Your task to perform on an android device: open chrome and create a bookmark for the current page Image 0: 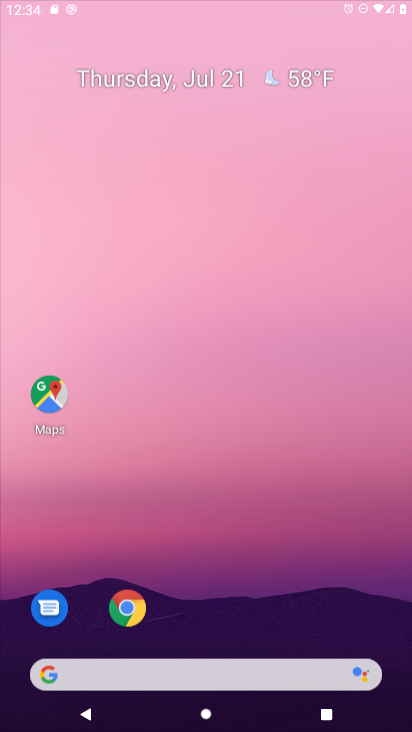
Step 0: press home button
Your task to perform on an android device: open chrome and create a bookmark for the current page Image 1: 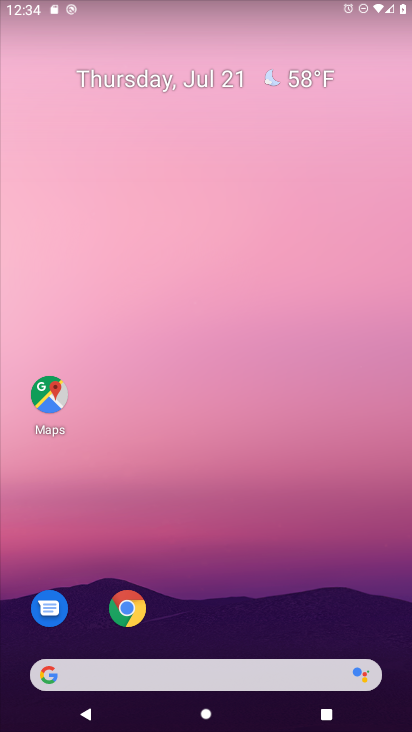
Step 1: drag from (234, 634) to (311, 35)
Your task to perform on an android device: open chrome and create a bookmark for the current page Image 2: 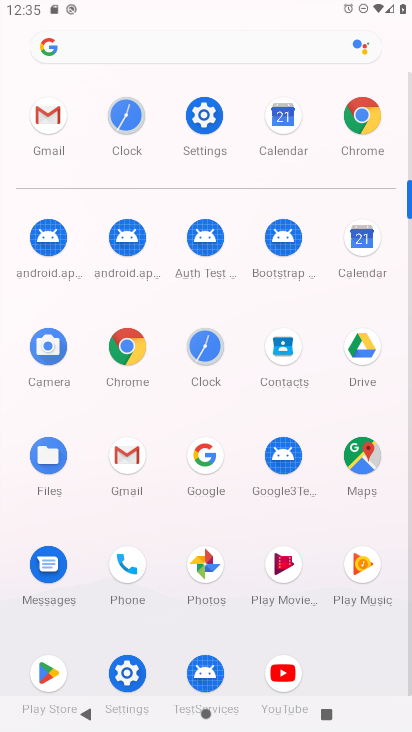
Step 2: click (359, 114)
Your task to perform on an android device: open chrome and create a bookmark for the current page Image 3: 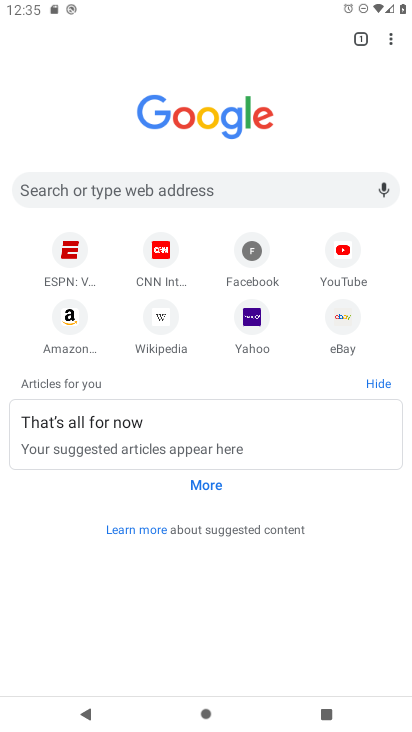
Step 3: task complete